Your task to perform on an android device: Open location settings Image 0: 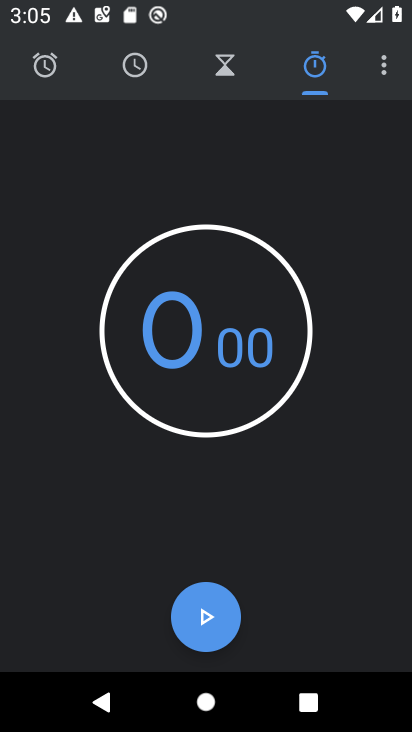
Step 0: press home button
Your task to perform on an android device: Open location settings Image 1: 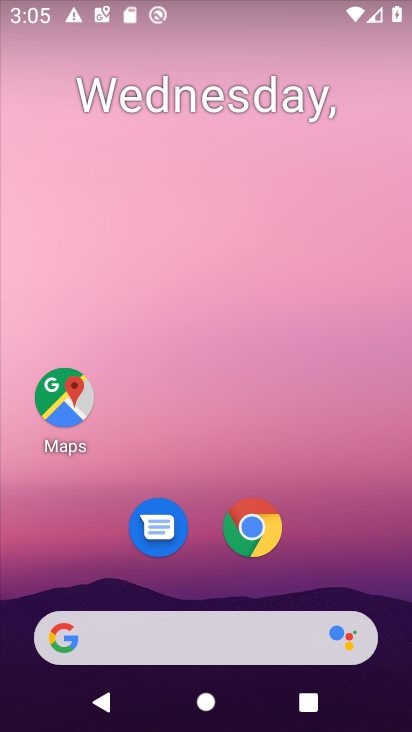
Step 1: drag from (336, 538) to (338, 67)
Your task to perform on an android device: Open location settings Image 2: 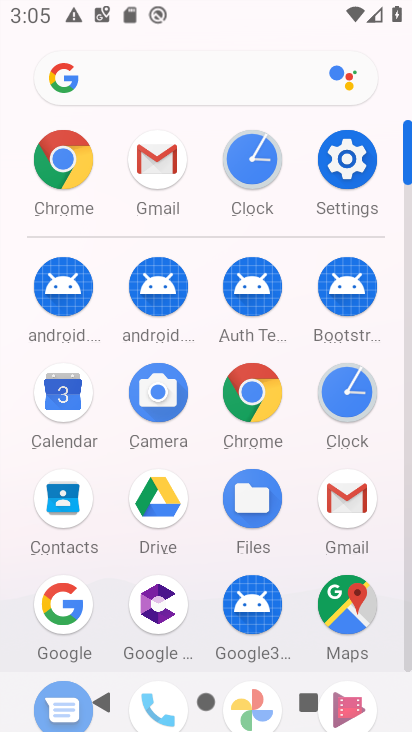
Step 2: click (338, 155)
Your task to perform on an android device: Open location settings Image 3: 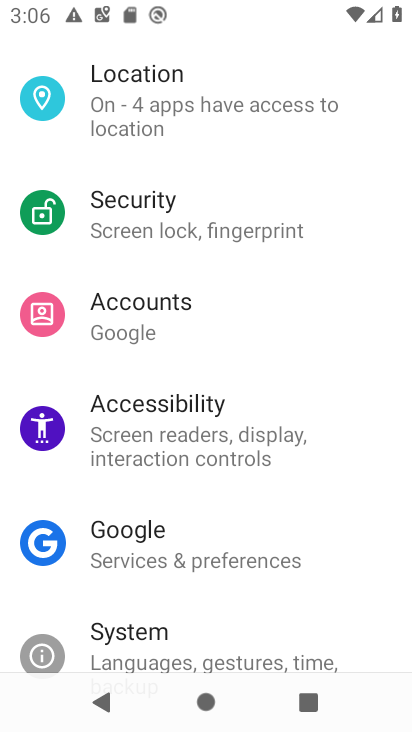
Step 3: click (160, 113)
Your task to perform on an android device: Open location settings Image 4: 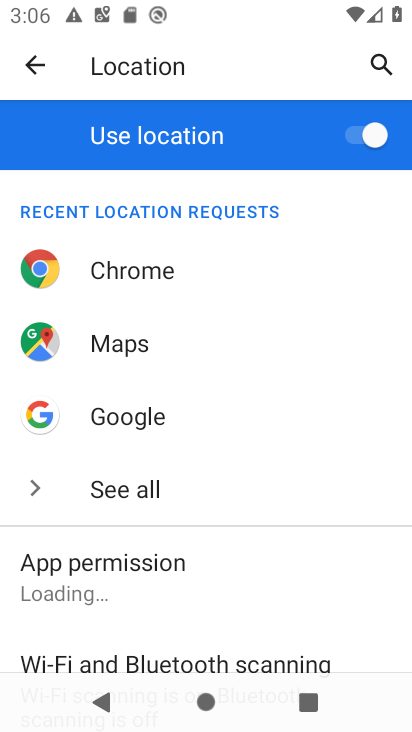
Step 4: task complete